Your task to perform on an android device: manage bookmarks in the chrome app Image 0: 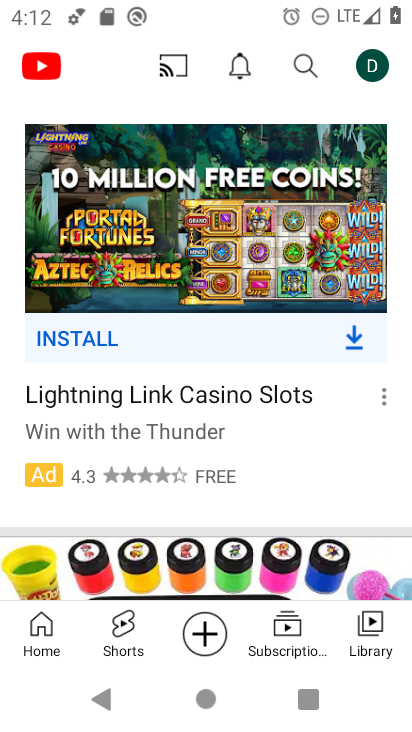
Step 0: press home button
Your task to perform on an android device: manage bookmarks in the chrome app Image 1: 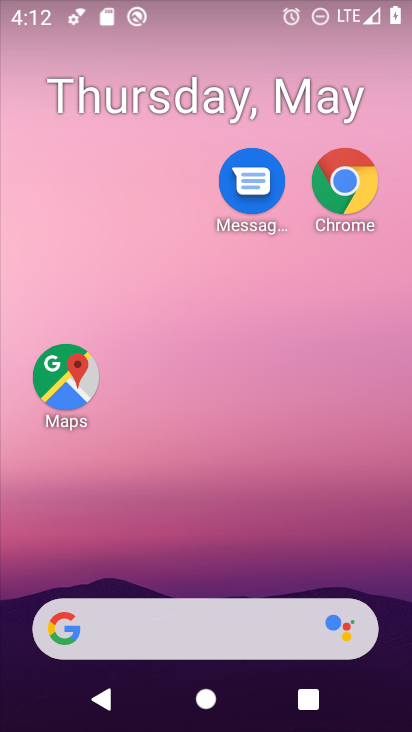
Step 1: drag from (226, 610) to (377, 75)
Your task to perform on an android device: manage bookmarks in the chrome app Image 2: 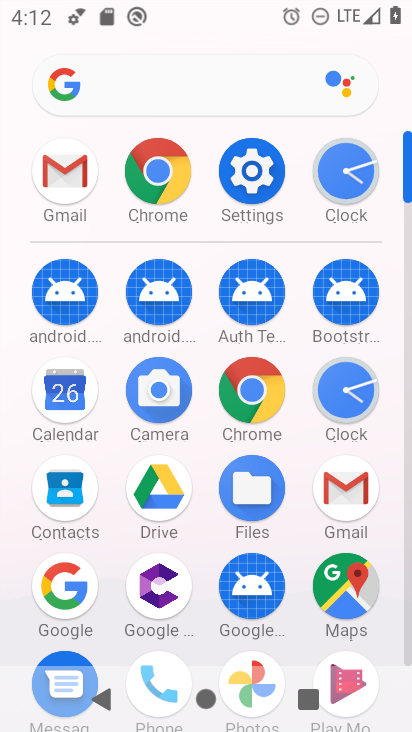
Step 2: click (260, 379)
Your task to perform on an android device: manage bookmarks in the chrome app Image 3: 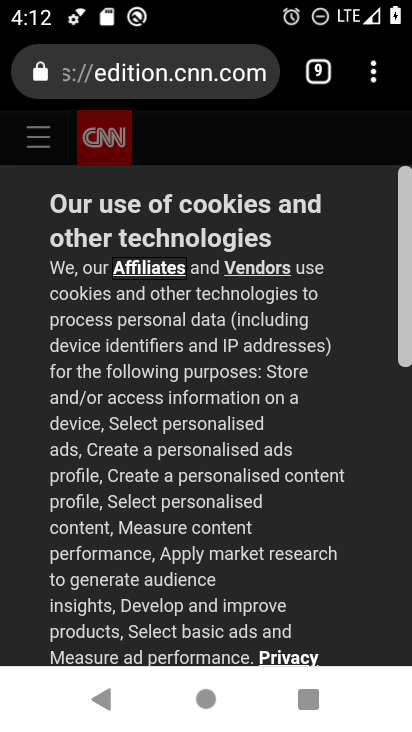
Step 3: drag from (374, 74) to (147, 281)
Your task to perform on an android device: manage bookmarks in the chrome app Image 4: 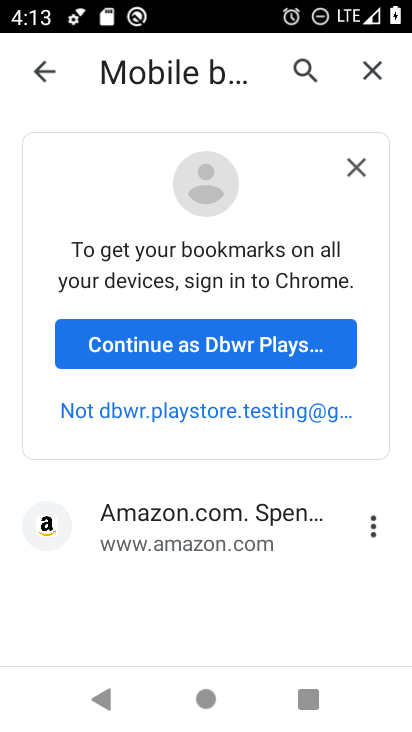
Step 4: click (368, 525)
Your task to perform on an android device: manage bookmarks in the chrome app Image 5: 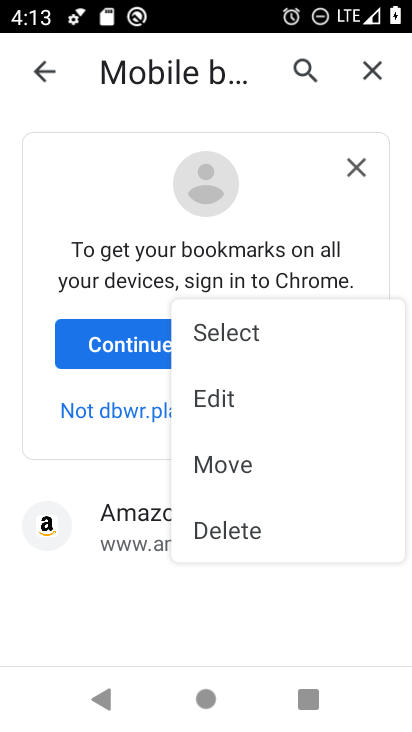
Step 5: click (227, 631)
Your task to perform on an android device: manage bookmarks in the chrome app Image 6: 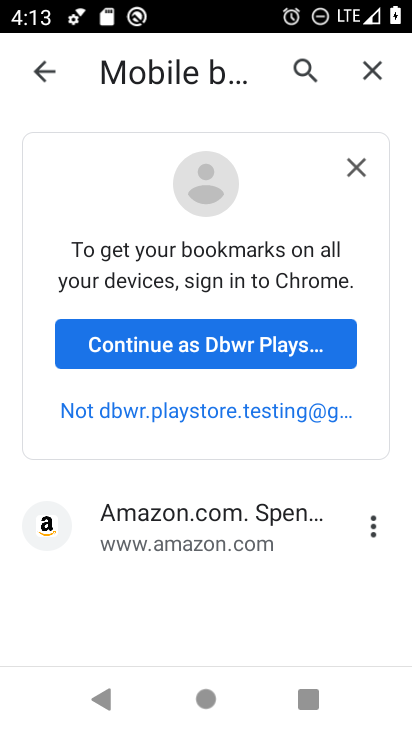
Step 6: task complete